Your task to perform on an android device: Open sound settings Image 0: 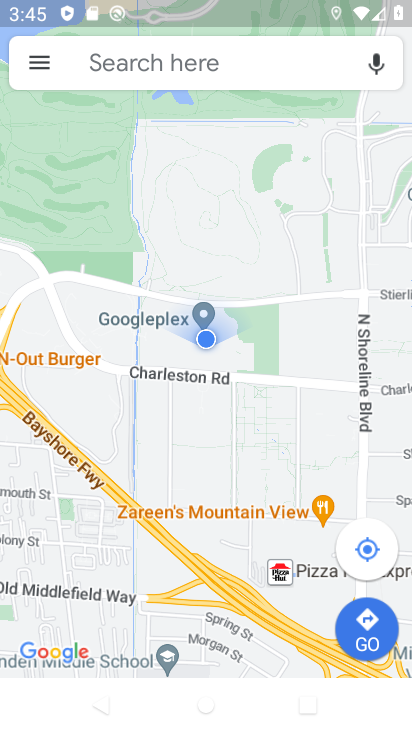
Step 0: press home button
Your task to perform on an android device: Open sound settings Image 1: 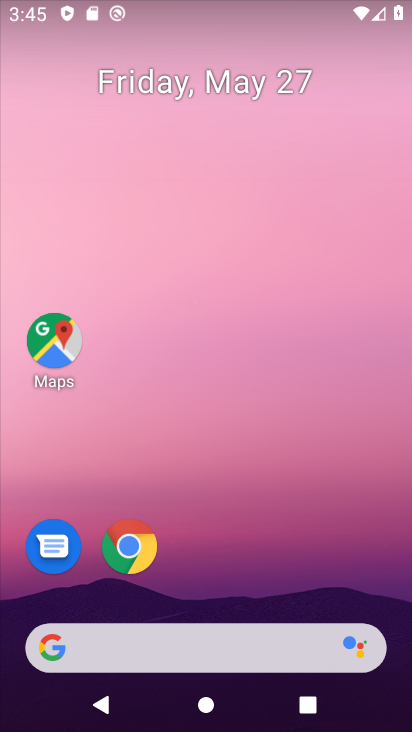
Step 1: drag from (232, 597) to (247, 70)
Your task to perform on an android device: Open sound settings Image 2: 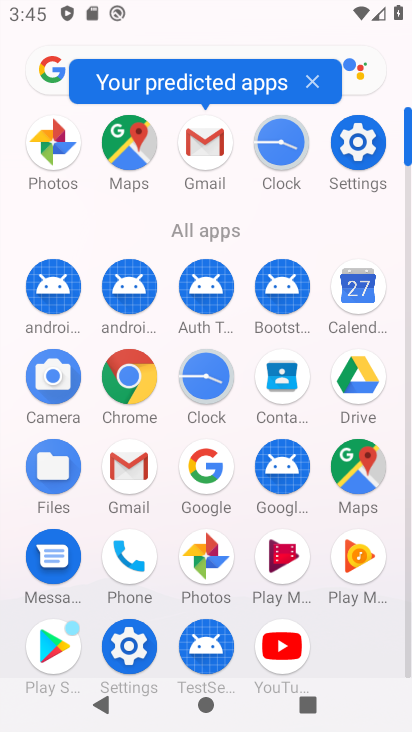
Step 2: click (363, 136)
Your task to perform on an android device: Open sound settings Image 3: 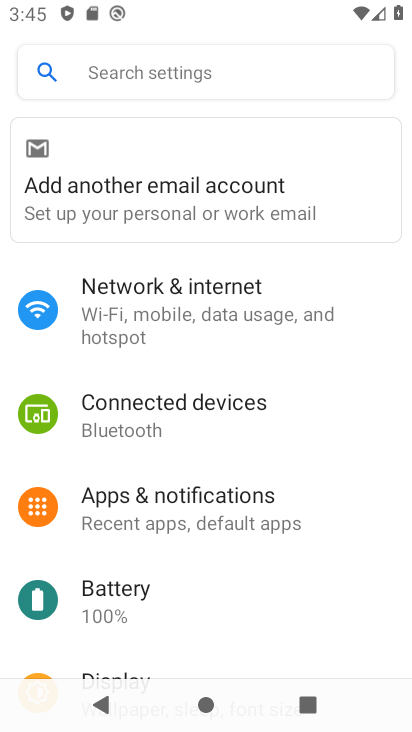
Step 3: drag from (148, 656) to (190, 130)
Your task to perform on an android device: Open sound settings Image 4: 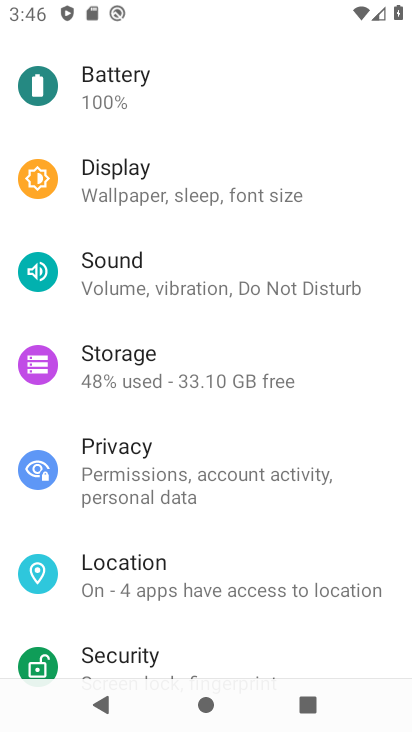
Step 4: click (162, 273)
Your task to perform on an android device: Open sound settings Image 5: 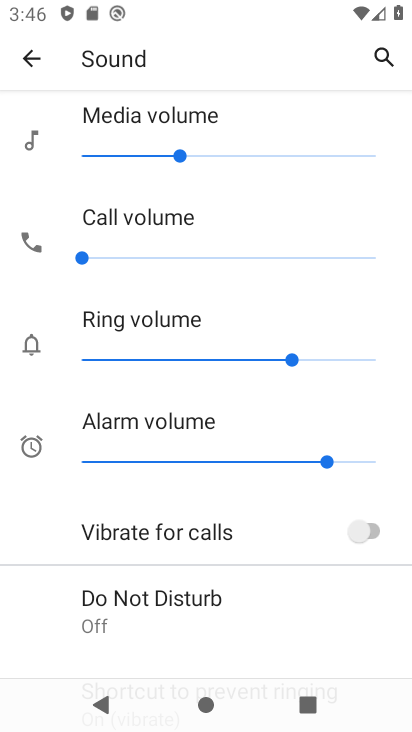
Step 5: drag from (192, 651) to (201, 163)
Your task to perform on an android device: Open sound settings Image 6: 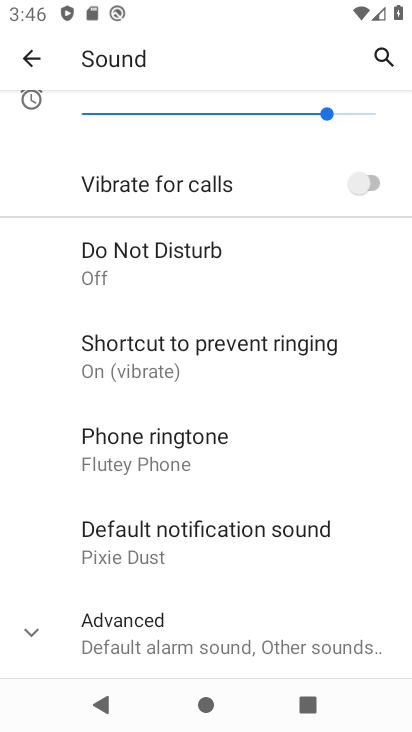
Step 6: click (26, 624)
Your task to perform on an android device: Open sound settings Image 7: 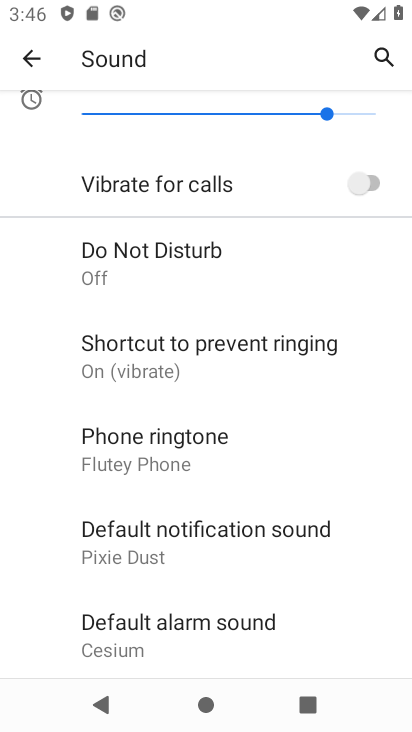
Step 7: task complete